Your task to perform on an android device: Check the news Image 0: 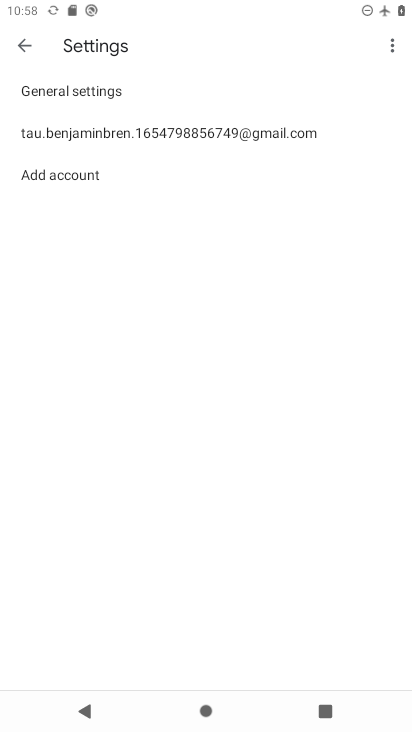
Step 0: press home button
Your task to perform on an android device: Check the news Image 1: 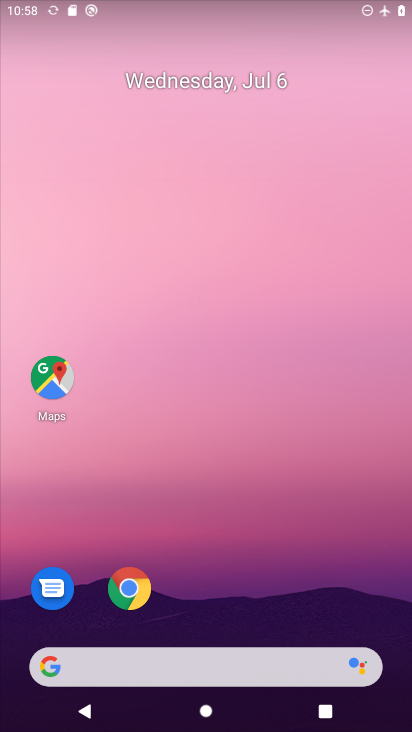
Step 1: drag from (243, 611) to (270, 101)
Your task to perform on an android device: Check the news Image 2: 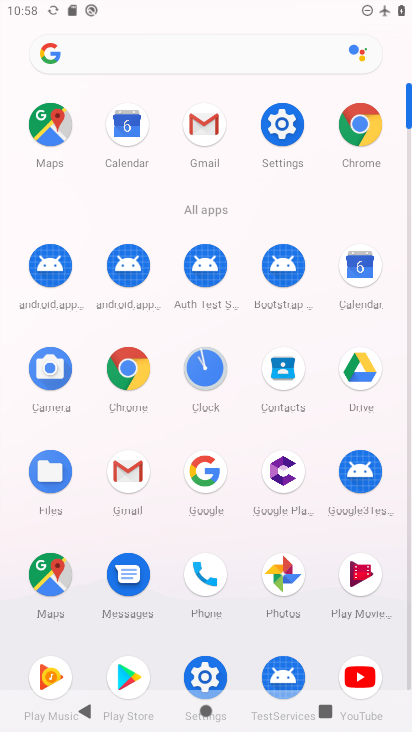
Step 2: click (360, 130)
Your task to perform on an android device: Check the news Image 3: 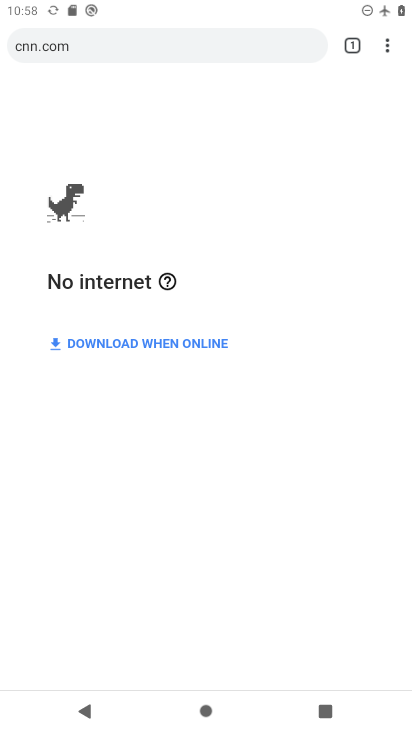
Step 3: click (172, 40)
Your task to perform on an android device: Check the news Image 4: 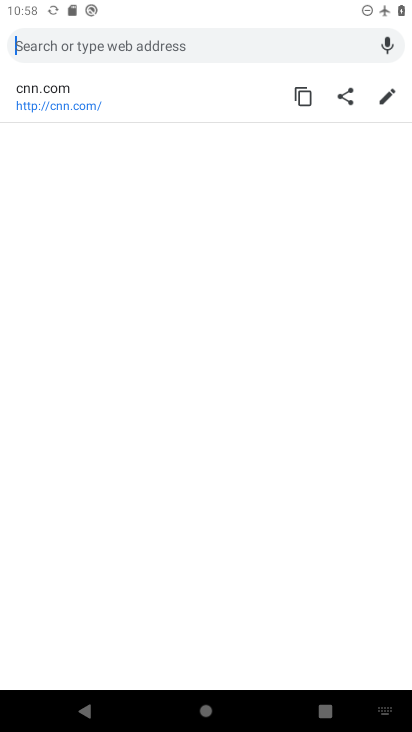
Step 4: type "Check the news"
Your task to perform on an android device: Check the news Image 5: 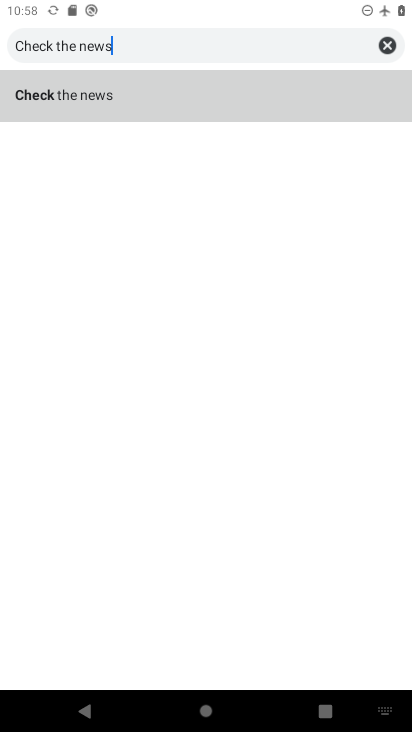
Step 5: click (183, 96)
Your task to perform on an android device: Check the news Image 6: 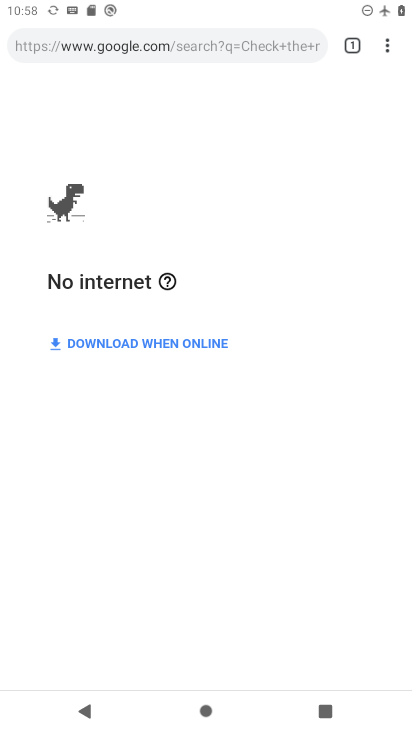
Step 6: task complete